Your task to perform on an android device: Go to eBay Image 0: 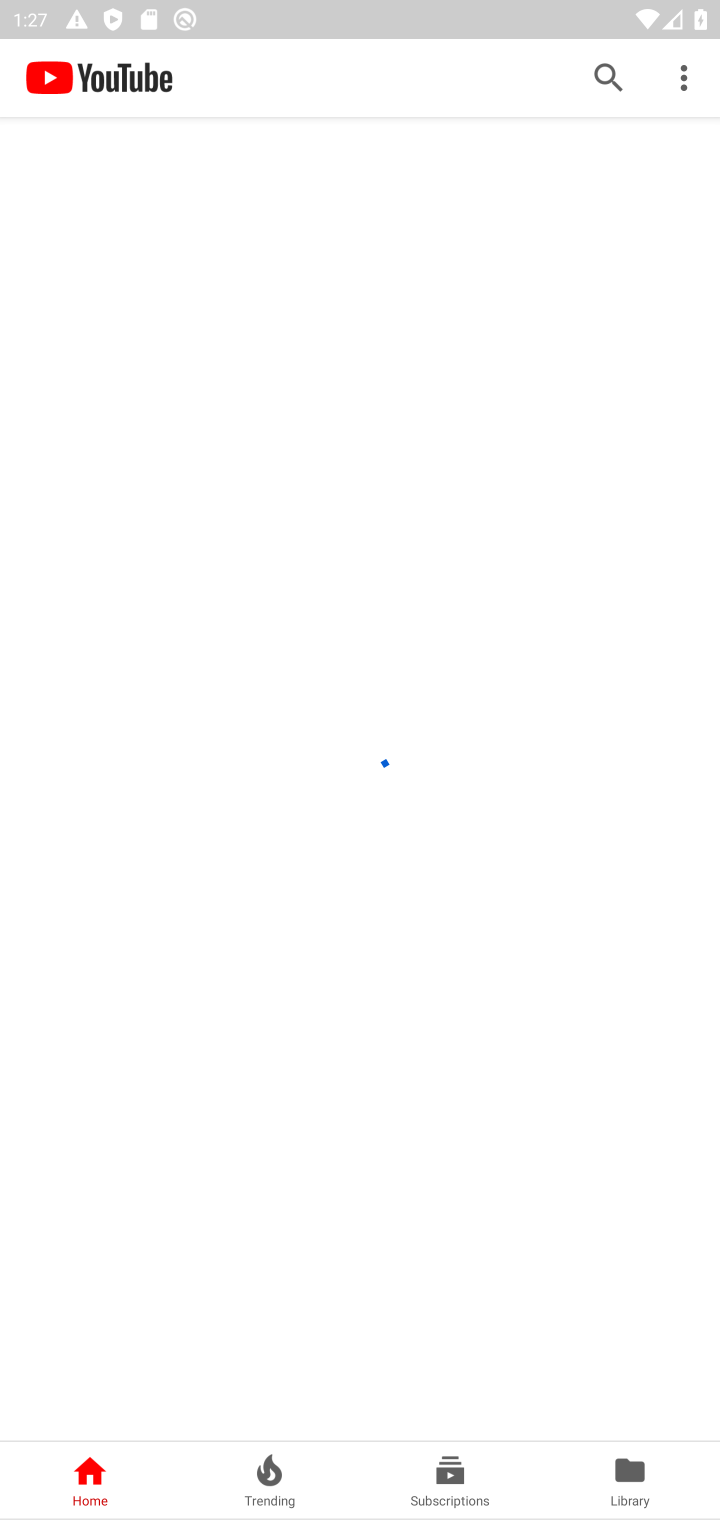
Step 0: press home button
Your task to perform on an android device: Go to eBay Image 1: 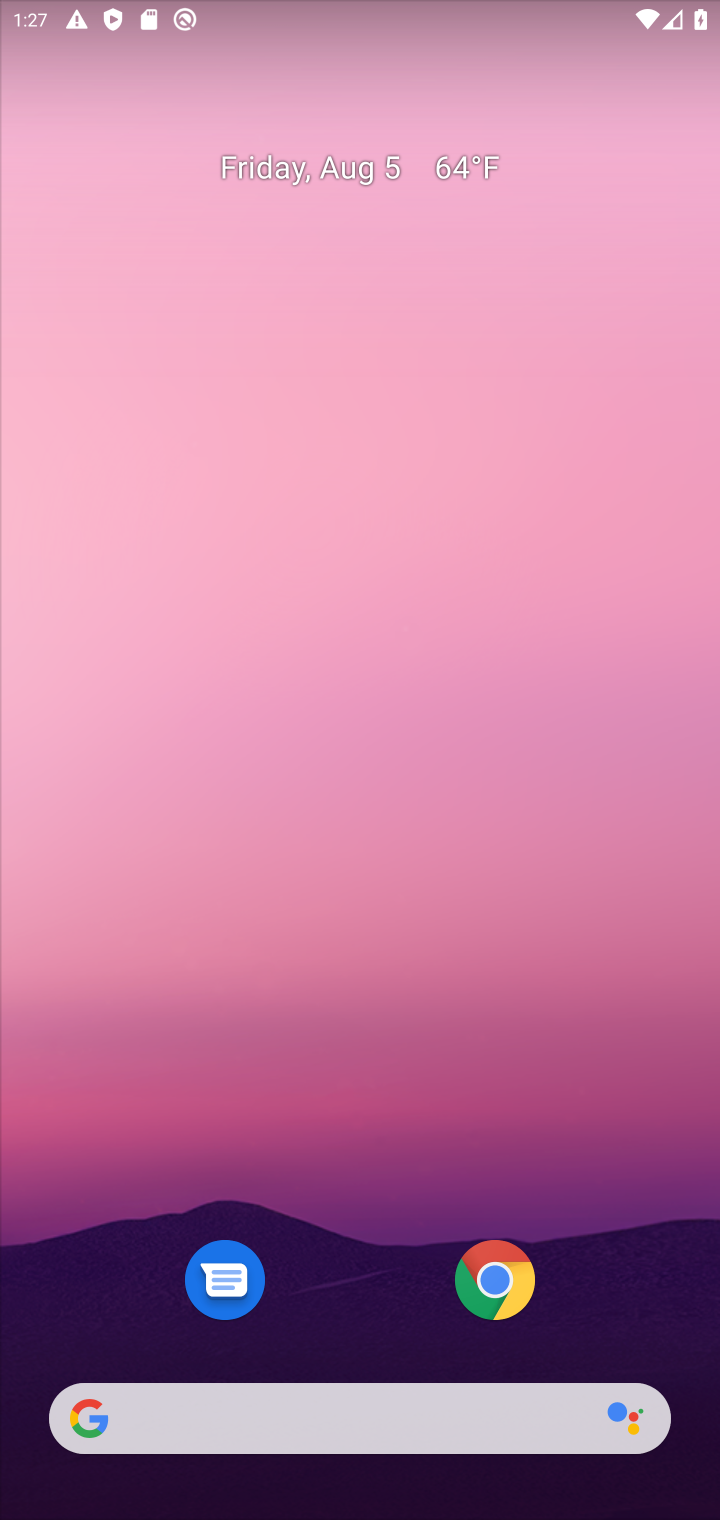
Step 1: click (491, 1281)
Your task to perform on an android device: Go to eBay Image 2: 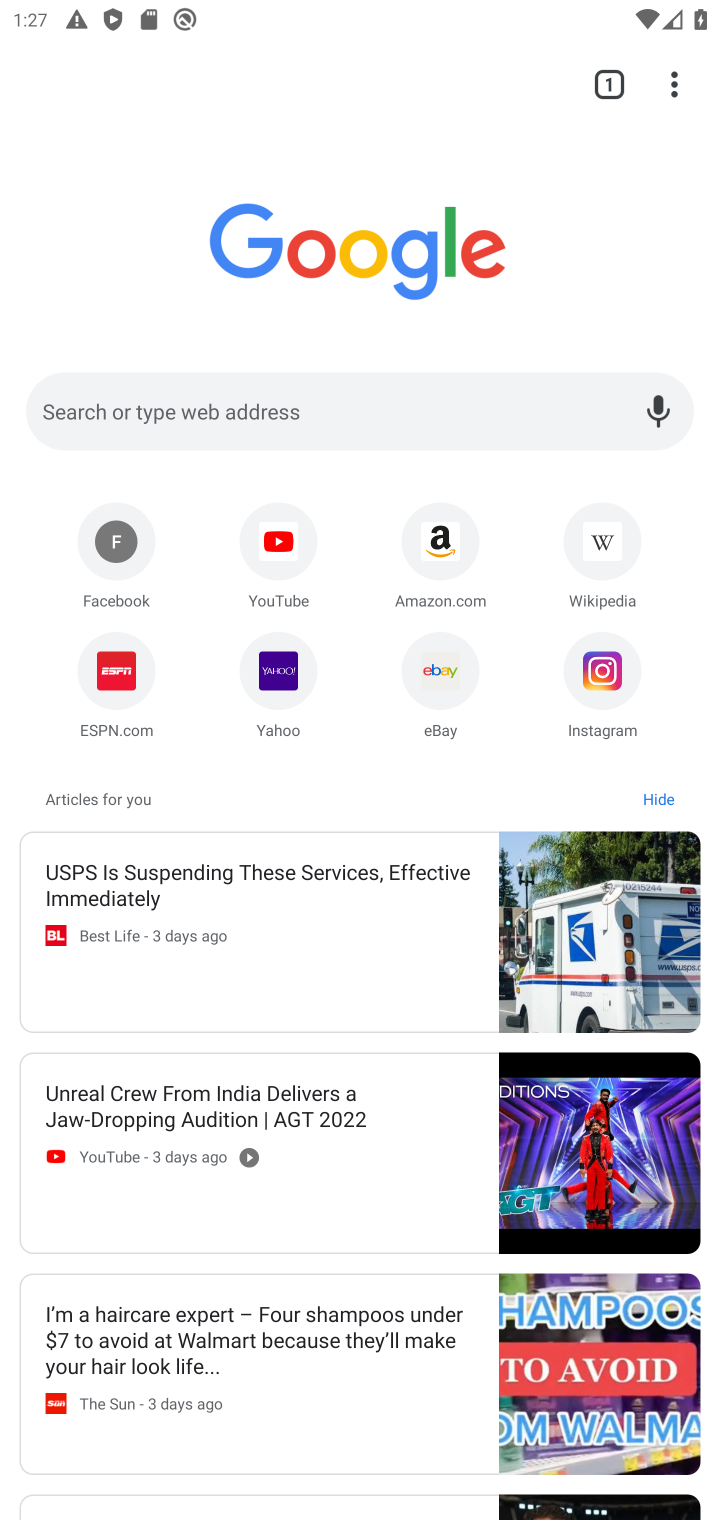
Step 2: click (443, 659)
Your task to perform on an android device: Go to eBay Image 3: 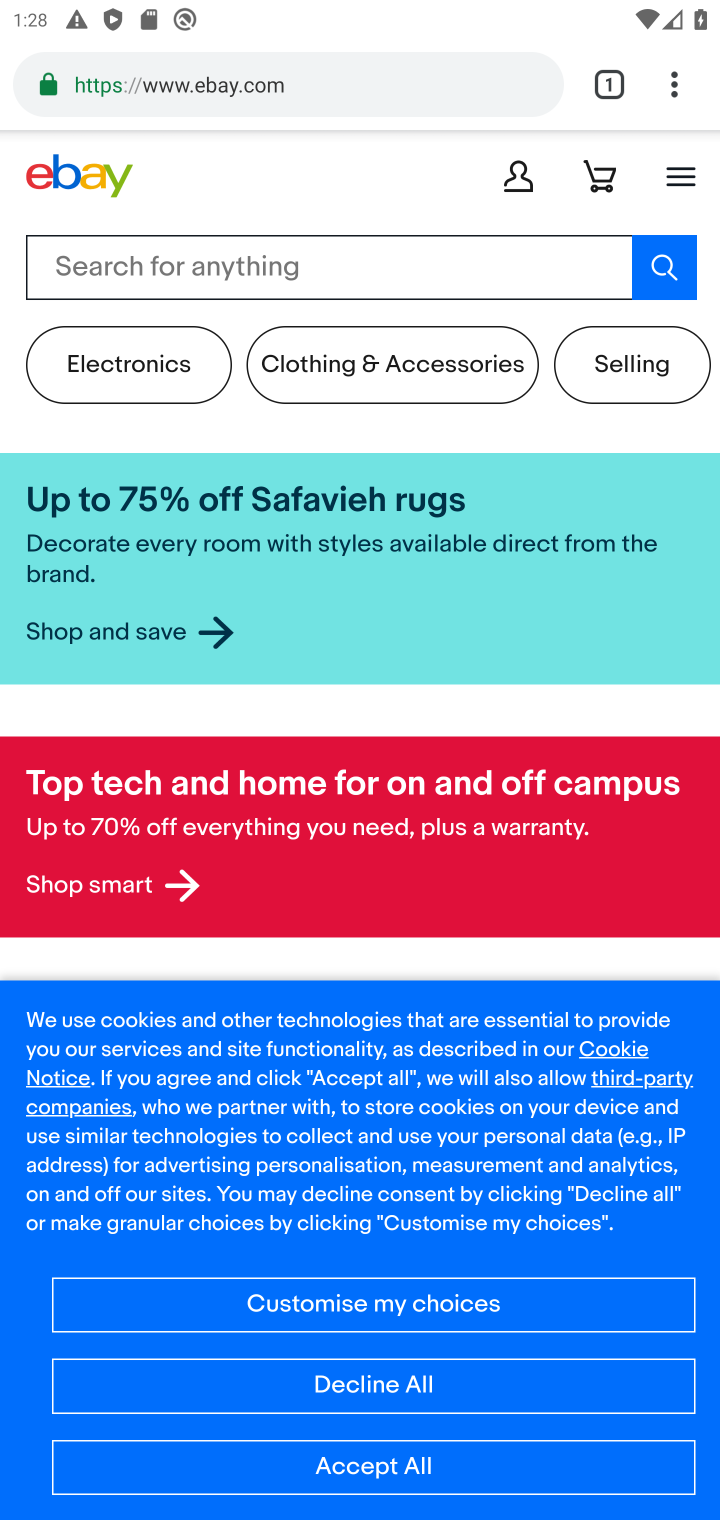
Step 3: task complete